Your task to perform on an android device: toggle improve location accuracy Image 0: 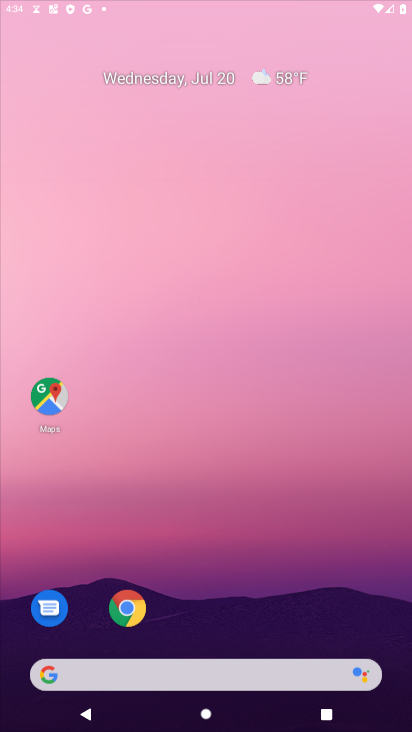
Step 0: drag from (225, 59) to (229, 0)
Your task to perform on an android device: toggle improve location accuracy Image 1: 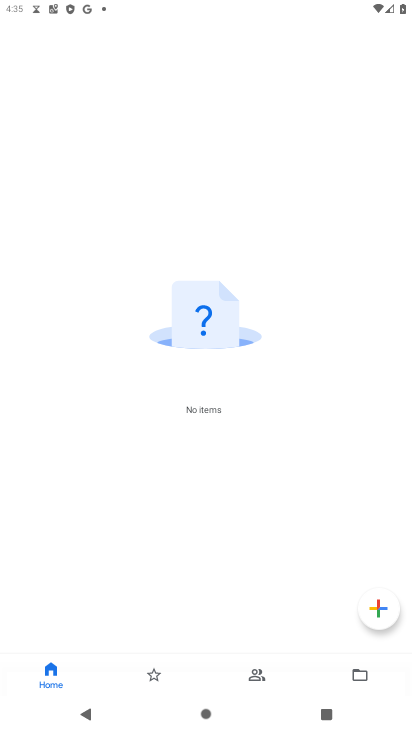
Step 1: press home button
Your task to perform on an android device: toggle improve location accuracy Image 2: 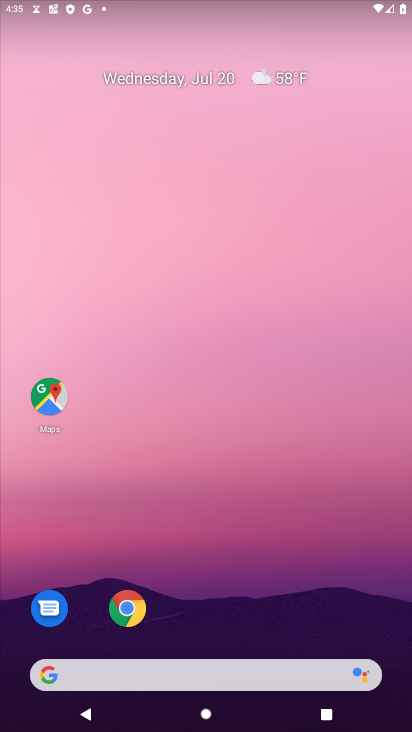
Step 2: drag from (193, 524) to (175, 59)
Your task to perform on an android device: toggle improve location accuracy Image 3: 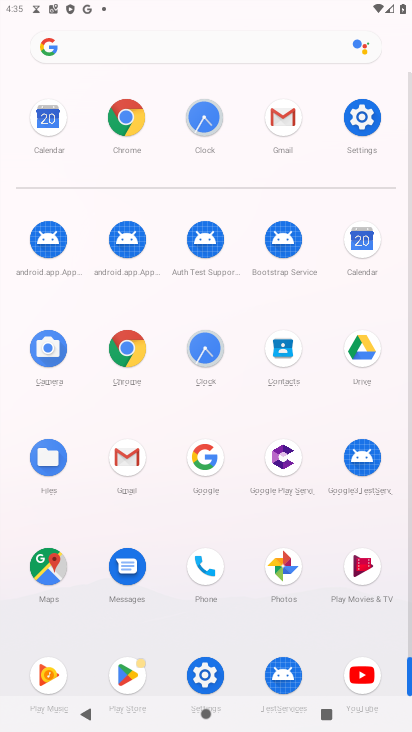
Step 3: click (210, 673)
Your task to perform on an android device: toggle improve location accuracy Image 4: 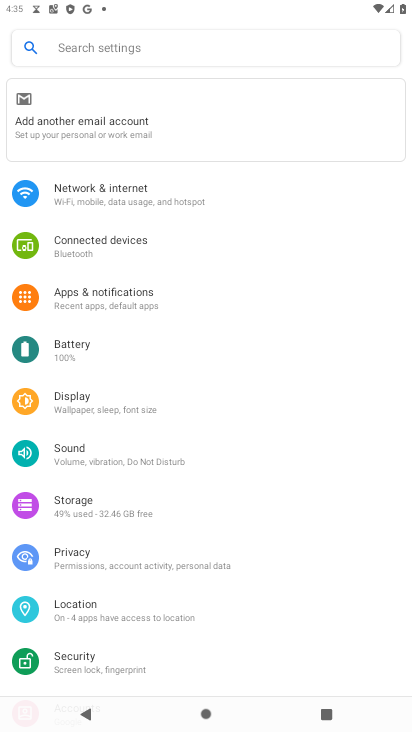
Step 4: click (101, 611)
Your task to perform on an android device: toggle improve location accuracy Image 5: 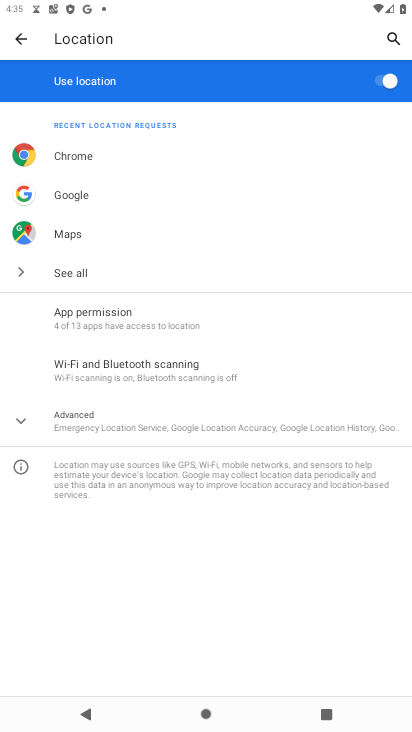
Step 5: click (110, 433)
Your task to perform on an android device: toggle improve location accuracy Image 6: 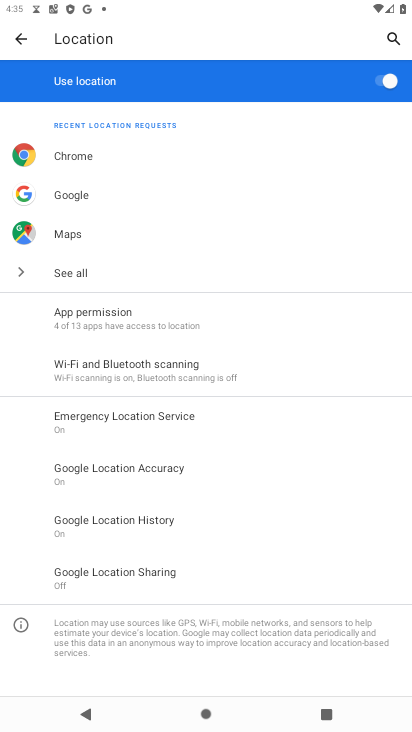
Step 6: click (125, 477)
Your task to perform on an android device: toggle improve location accuracy Image 7: 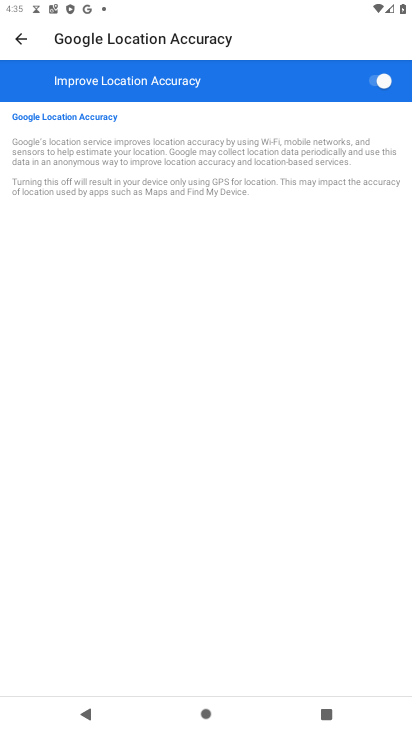
Step 7: click (366, 85)
Your task to perform on an android device: toggle improve location accuracy Image 8: 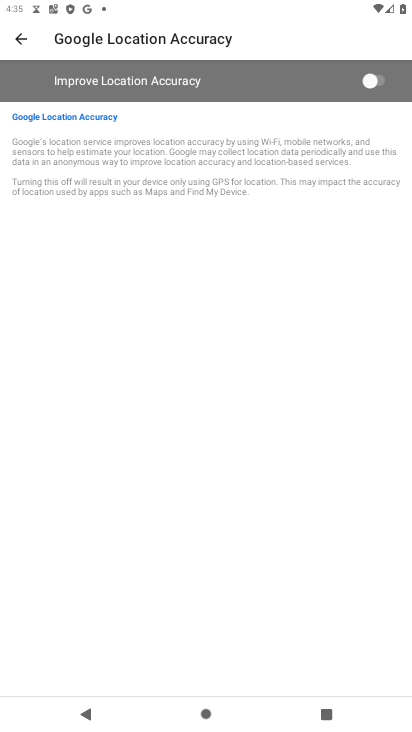
Step 8: task complete